Your task to perform on an android device: Check the weather Image 0: 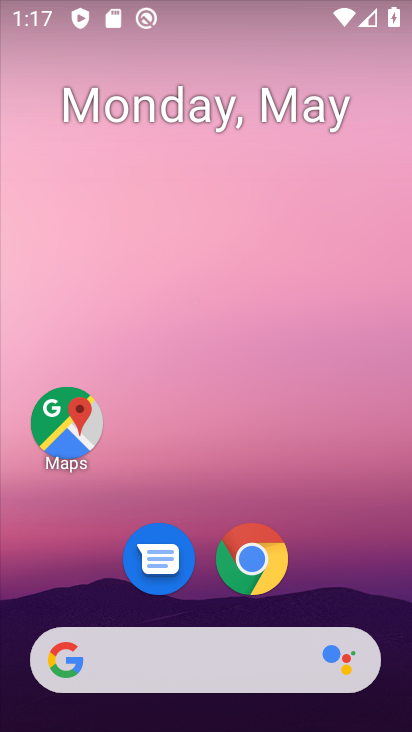
Step 0: drag from (348, 455) to (322, 85)
Your task to perform on an android device: Check the weather Image 1: 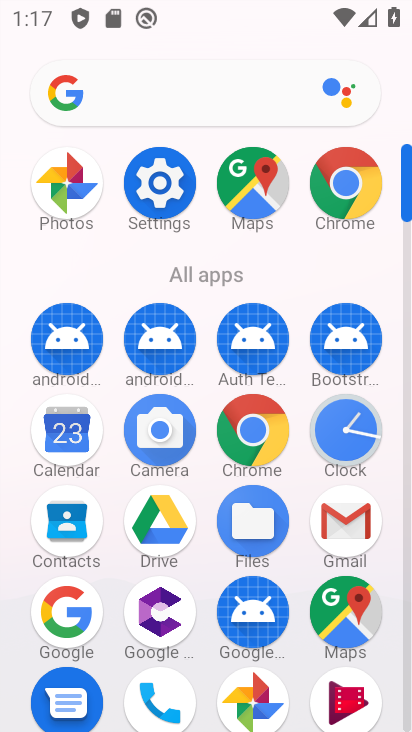
Step 1: click (342, 182)
Your task to perform on an android device: Check the weather Image 2: 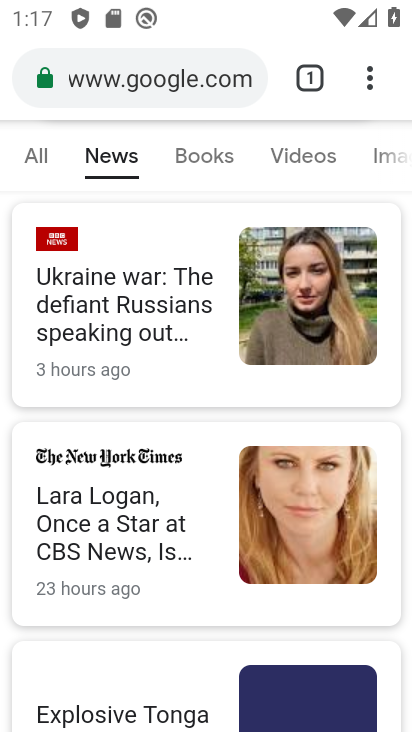
Step 2: click (175, 78)
Your task to perform on an android device: Check the weather Image 3: 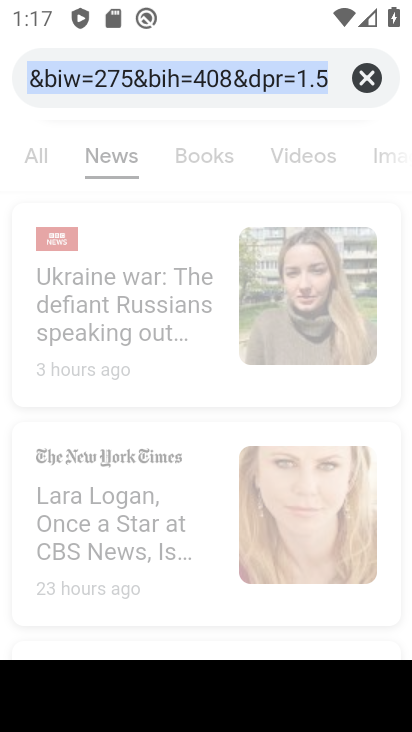
Step 3: type "weather"
Your task to perform on an android device: Check the weather Image 4: 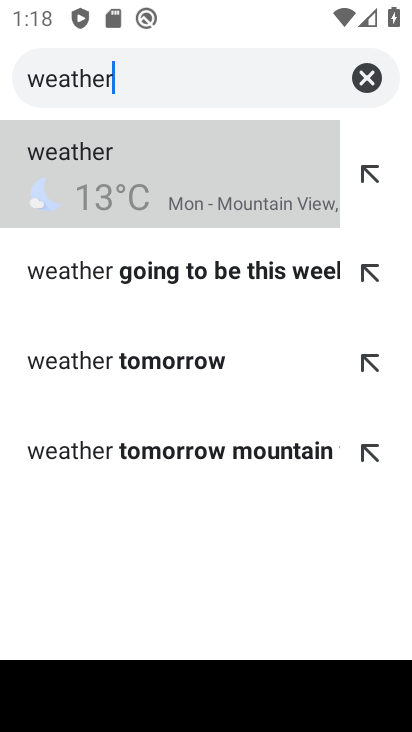
Step 4: click (58, 158)
Your task to perform on an android device: Check the weather Image 5: 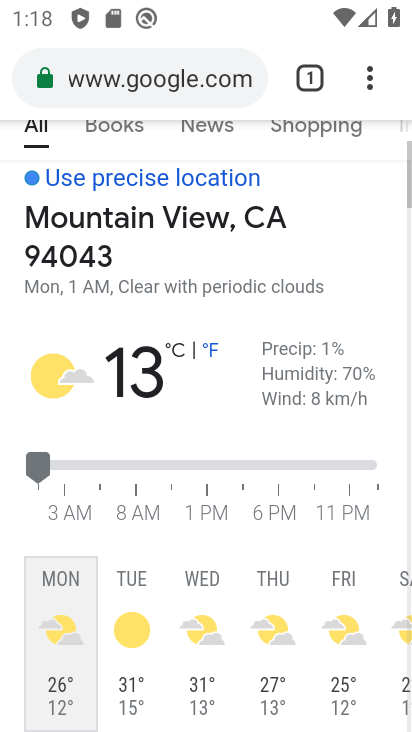
Step 5: task complete